Your task to perform on an android device: delete browsing data in the chrome app Image 0: 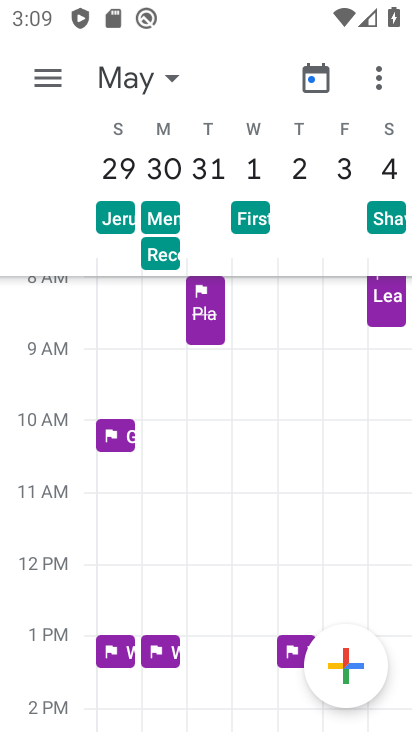
Step 0: press home button
Your task to perform on an android device: delete browsing data in the chrome app Image 1: 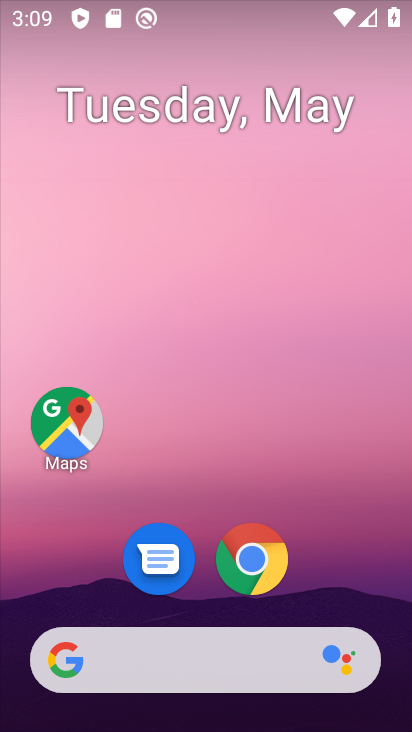
Step 1: click (254, 559)
Your task to perform on an android device: delete browsing data in the chrome app Image 2: 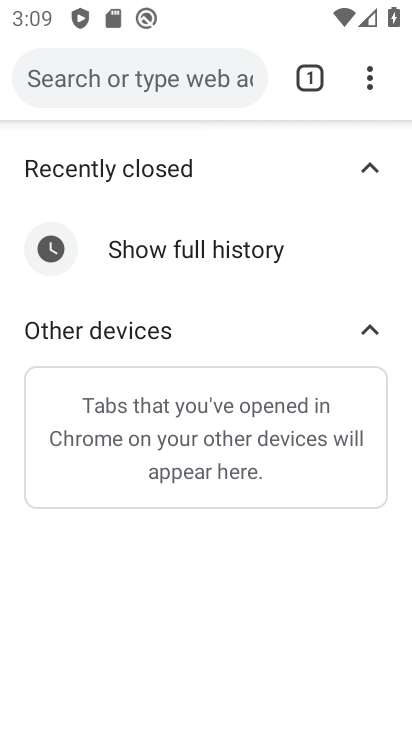
Step 2: click (370, 80)
Your task to perform on an android device: delete browsing data in the chrome app Image 3: 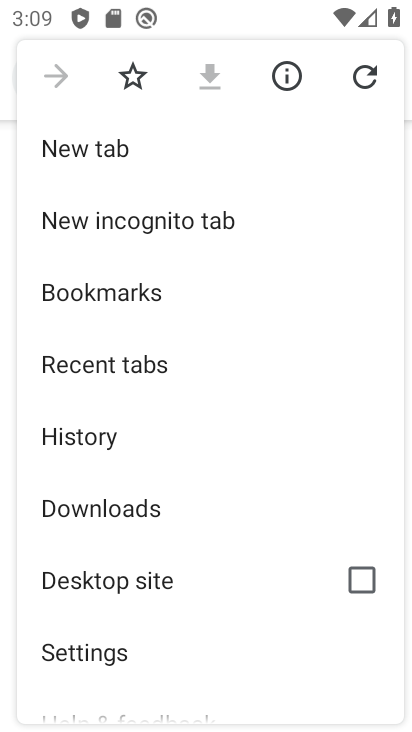
Step 3: click (80, 660)
Your task to perform on an android device: delete browsing data in the chrome app Image 4: 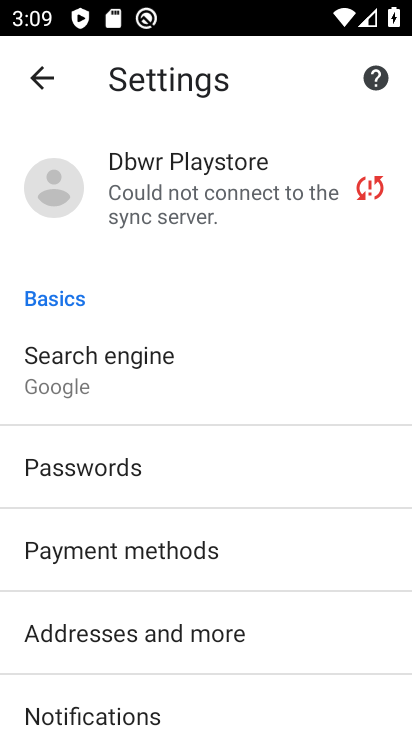
Step 4: drag from (93, 529) to (140, 434)
Your task to perform on an android device: delete browsing data in the chrome app Image 5: 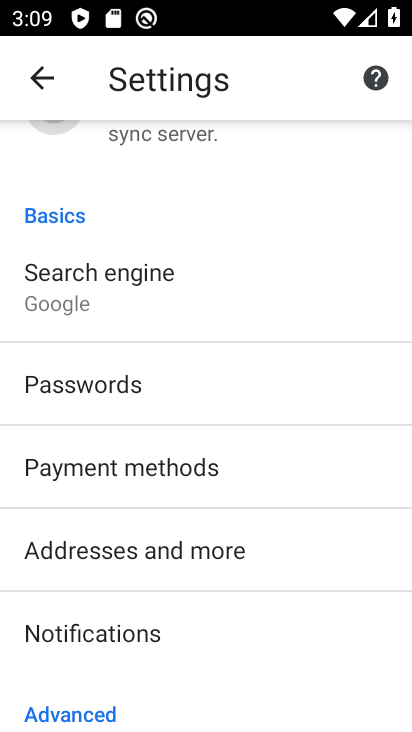
Step 5: drag from (101, 532) to (143, 424)
Your task to perform on an android device: delete browsing data in the chrome app Image 6: 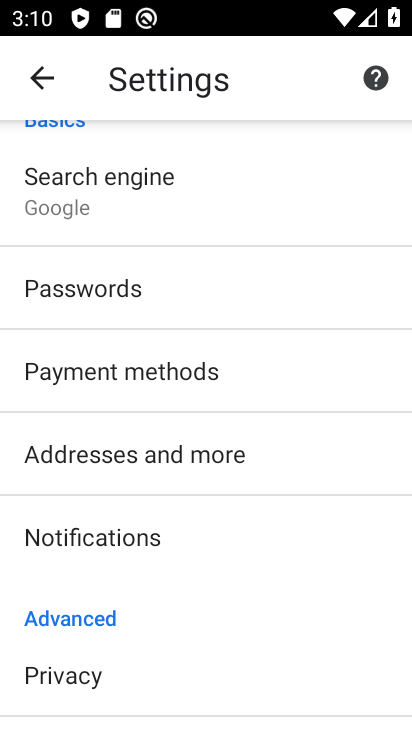
Step 6: drag from (86, 577) to (126, 445)
Your task to perform on an android device: delete browsing data in the chrome app Image 7: 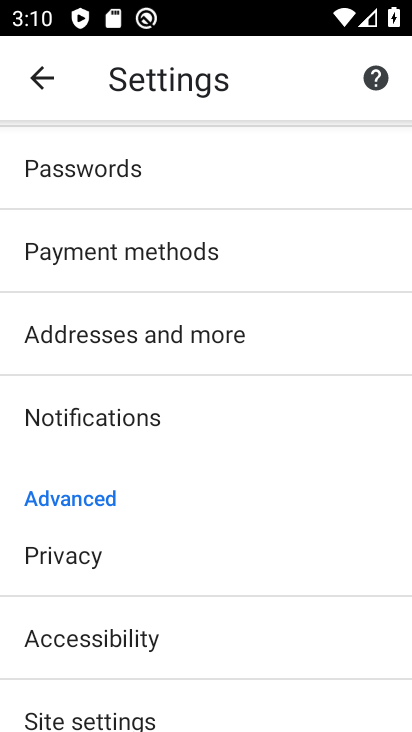
Step 7: drag from (103, 567) to (158, 441)
Your task to perform on an android device: delete browsing data in the chrome app Image 8: 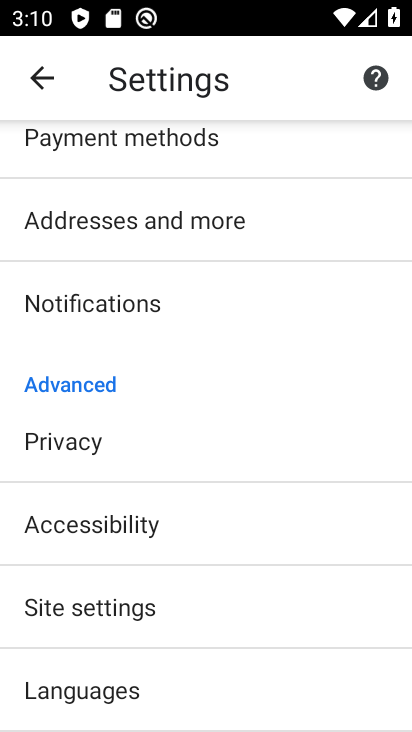
Step 8: click (89, 448)
Your task to perform on an android device: delete browsing data in the chrome app Image 9: 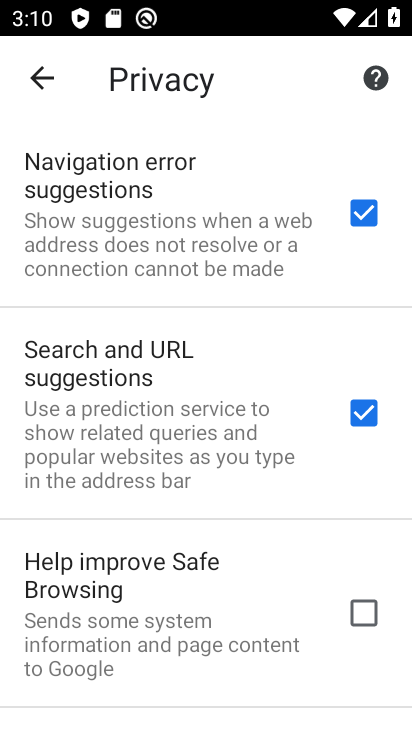
Step 9: drag from (122, 540) to (153, 428)
Your task to perform on an android device: delete browsing data in the chrome app Image 10: 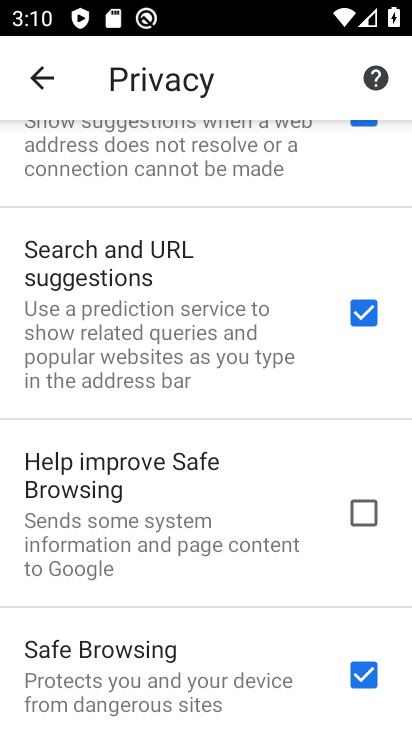
Step 10: drag from (146, 620) to (192, 522)
Your task to perform on an android device: delete browsing data in the chrome app Image 11: 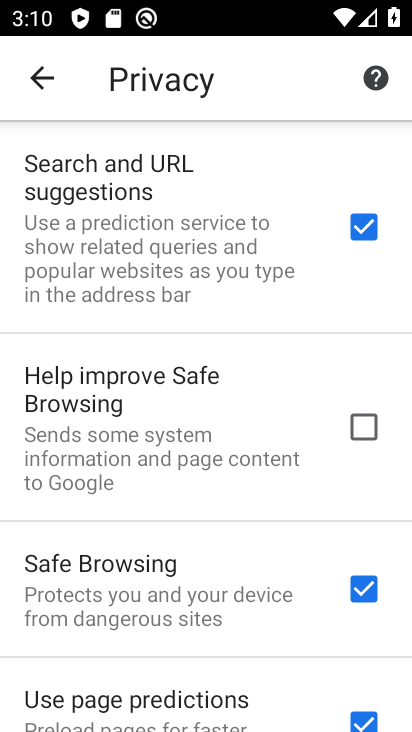
Step 11: drag from (133, 671) to (215, 565)
Your task to perform on an android device: delete browsing data in the chrome app Image 12: 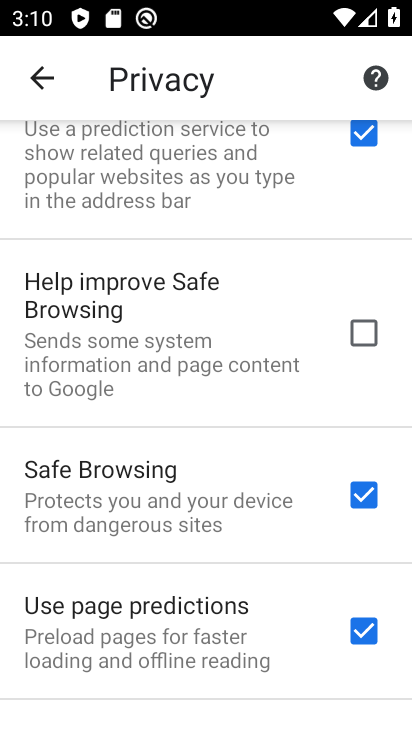
Step 12: drag from (131, 709) to (278, 455)
Your task to perform on an android device: delete browsing data in the chrome app Image 13: 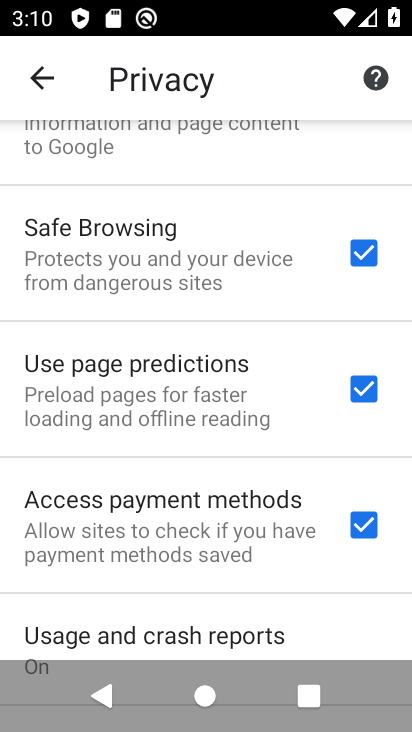
Step 13: drag from (157, 572) to (245, 386)
Your task to perform on an android device: delete browsing data in the chrome app Image 14: 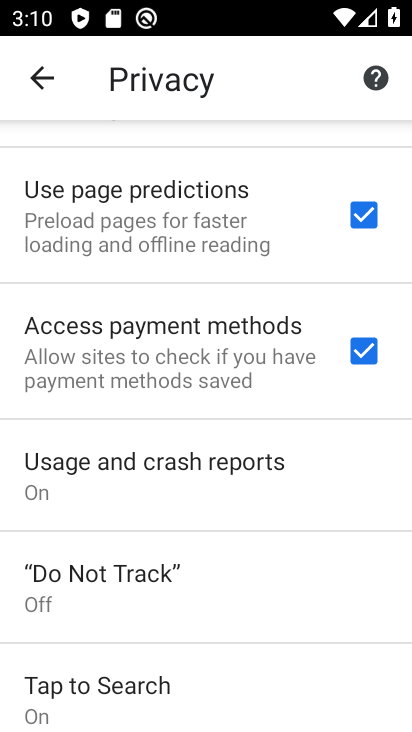
Step 14: drag from (174, 598) to (223, 439)
Your task to perform on an android device: delete browsing data in the chrome app Image 15: 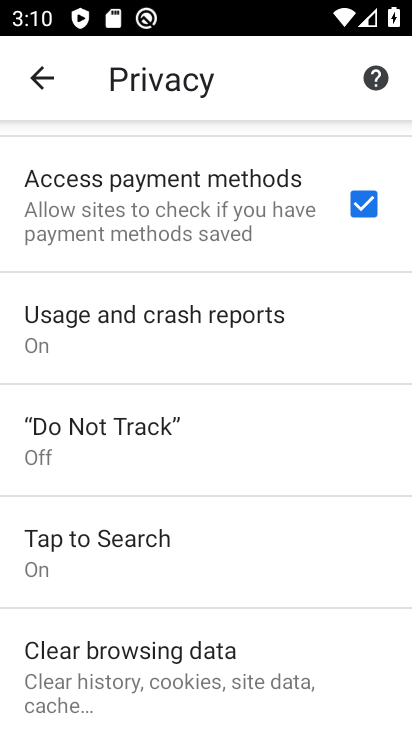
Step 15: click (146, 648)
Your task to perform on an android device: delete browsing data in the chrome app Image 16: 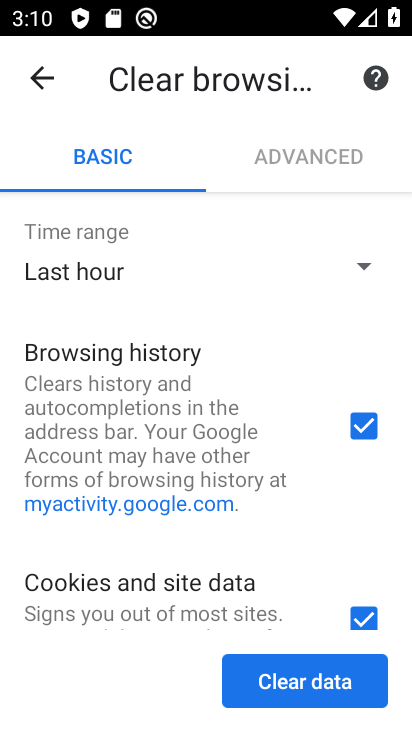
Step 16: click (366, 611)
Your task to perform on an android device: delete browsing data in the chrome app Image 17: 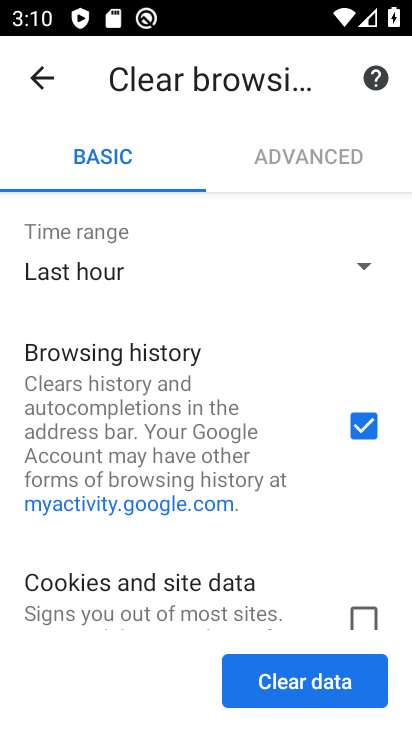
Step 17: click (312, 669)
Your task to perform on an android device: delete browsing data in the chrome app Image 18: 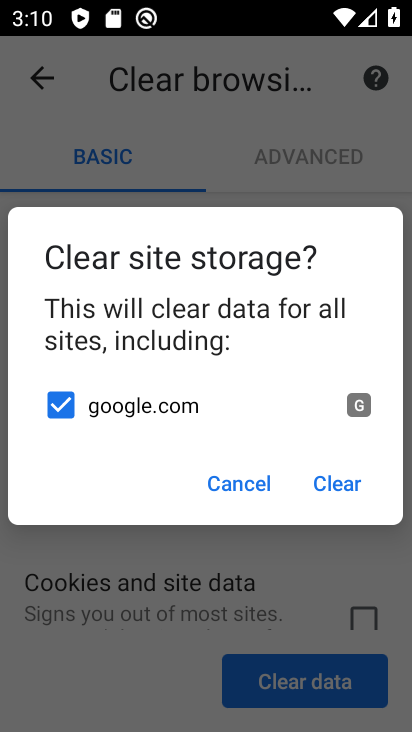
Step 18: click (360, 484)
Your task to perform on an android device: delete browsing data in the chrome app Image 19: 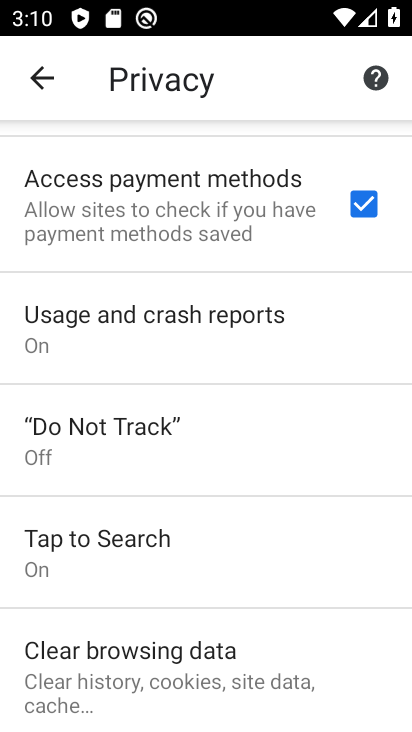
Step 19: task complete